Your task to perform on an android device: toggle pop-ups in chrome Image 0: 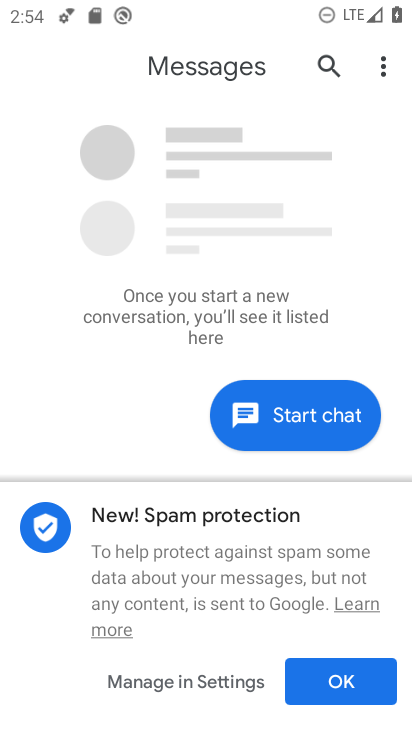
Step 0: press home button
Your task to perform on an android device: toggle pop-ups in chrome Image 1: 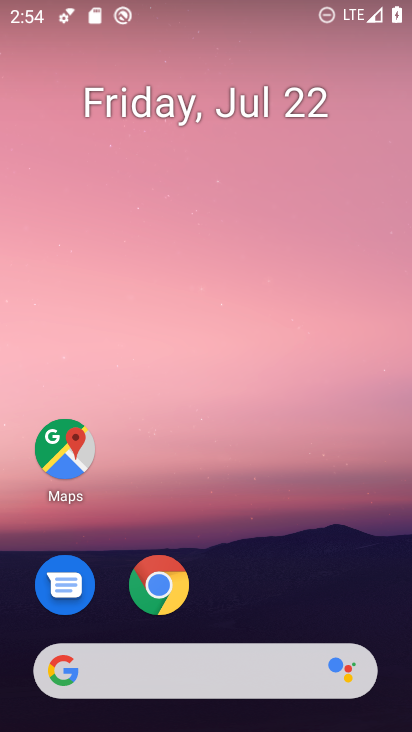
Step 1: click (177, 597)
Your task to perform on an android device: toggle pop-ups in chrome Image 2: 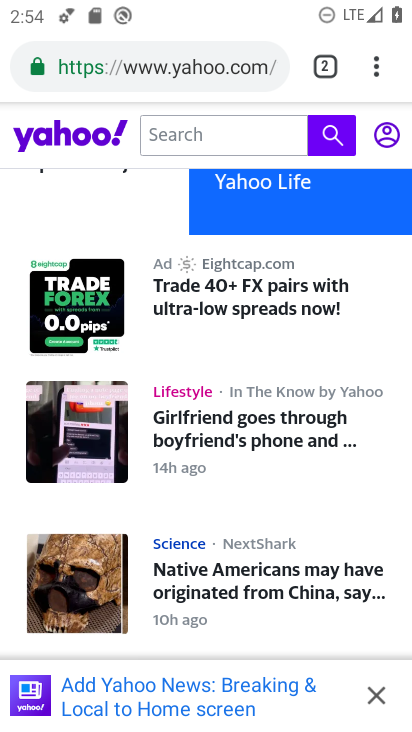
Step 2: press back button
Your task to perform on an android device: toggle pop-ups in chrome Image 3: 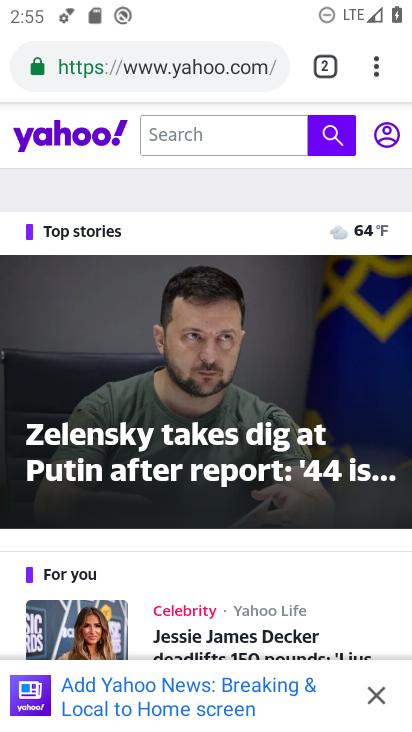
Step 3: click (376, 68)
Your task to perform on an android device: toggle pop-ups in chrome Image 4: 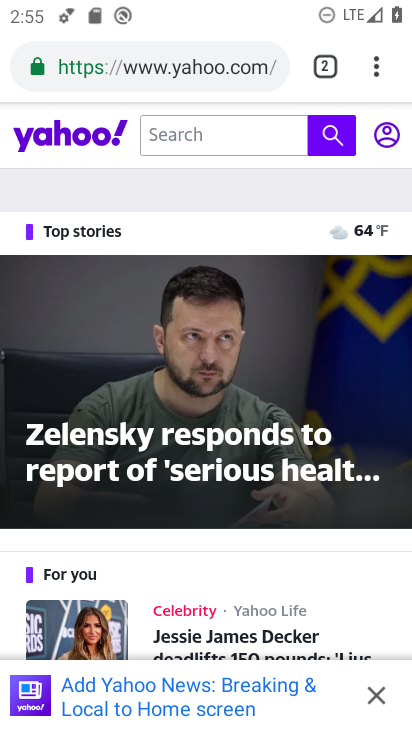
Step 4: click (376, 68)
Your task to perform on an android device: toggle pop-ups in chrome Image 5: 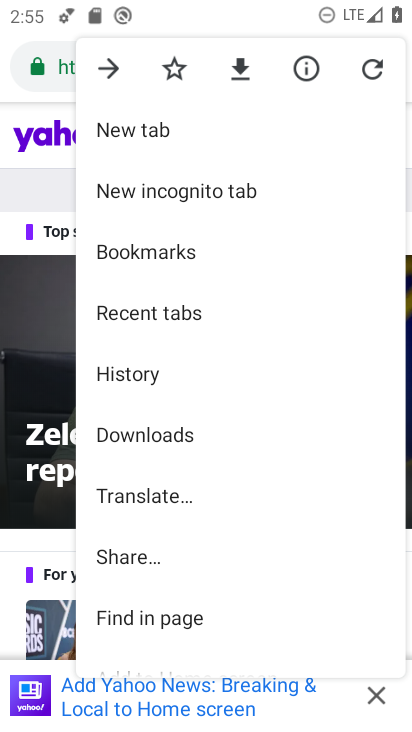
Step 5: drag from (281, 504) to (286, 217)
Your task to perform on an android device: toggle pop-ups in chrome Image 6: 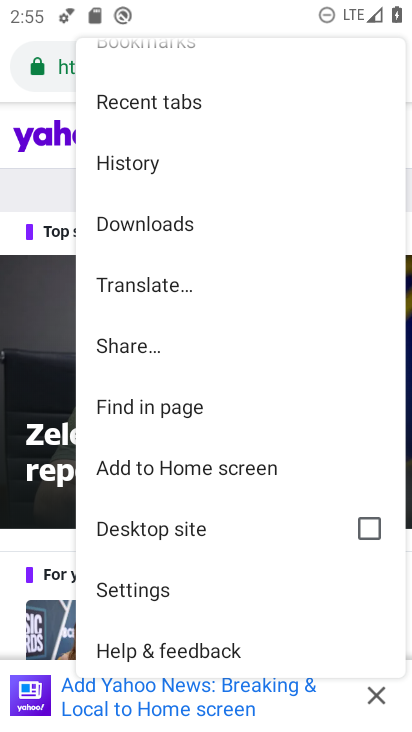
Step 6: click (171, 580)
Your task to perform on an android device: toggle pop-ups in chrome Image 7: 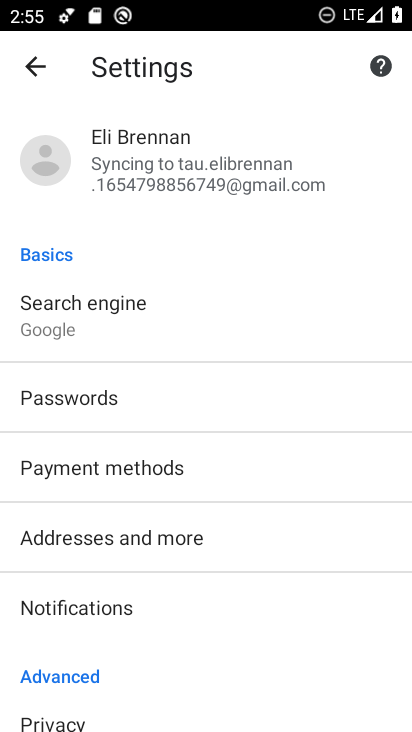
Step 7: drag from (255, 606) to (270, 164)
Your task to perform on an android device: toggle pop-ups in chrome Image 8: 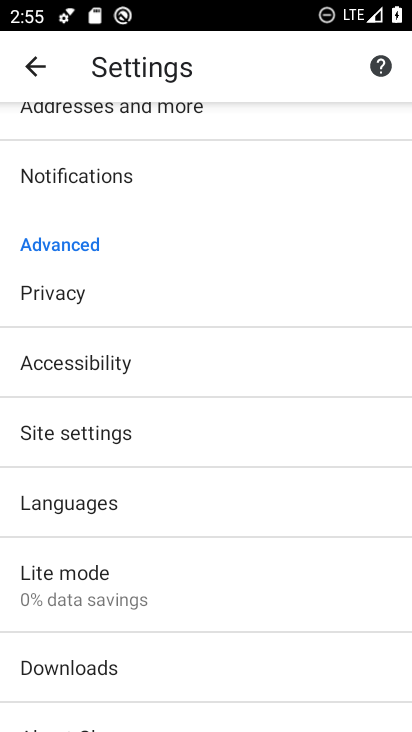
Step 8: click (116, 416)
Your task to perform on an android device: toggle pop-ups in chrome Image 9: 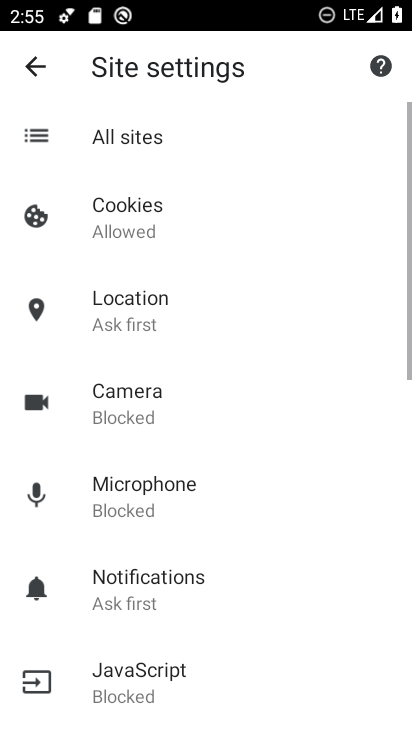
Step 9: drag from (249, 563) to (266, 261)
Your task to perform on an android device: toggle pop-ups in chrome Image 10: 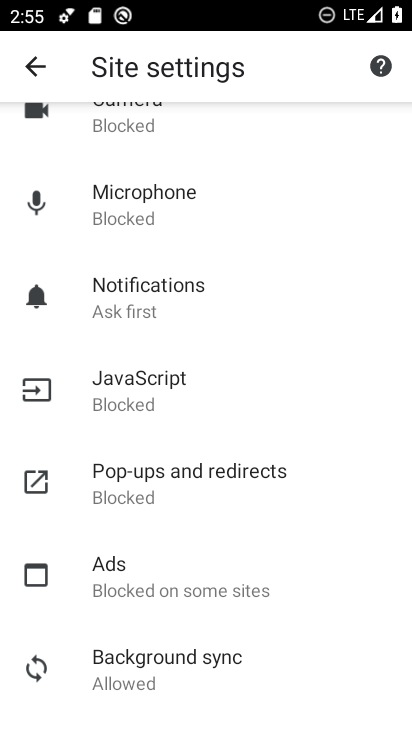
Step 10: click (239, 474)
Your task to perform on an android device: toggle pop-ups in chrome Image 11: 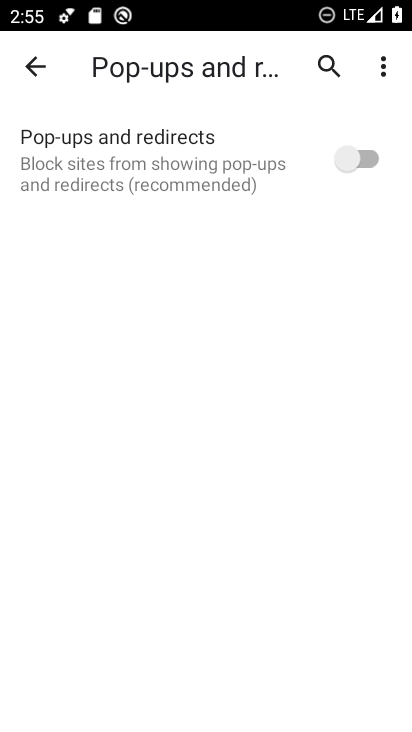
Step 11: click (357, 151)
Your task to perform on an android device: toggle pop-ups in chrome Image 12: 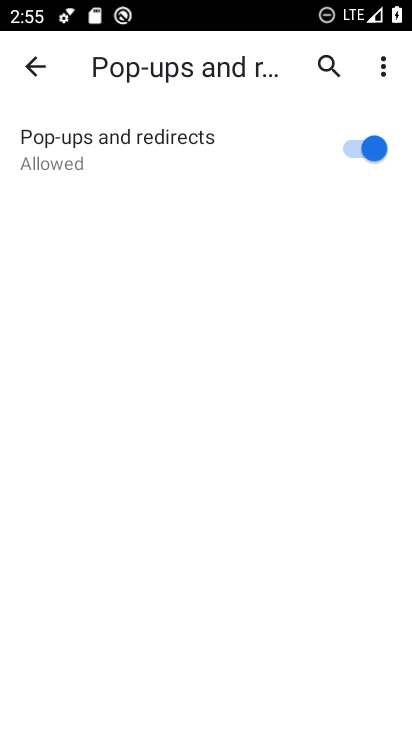
Step 12: task complete